Your task to perform on an android device: Go to eBay Image 0: 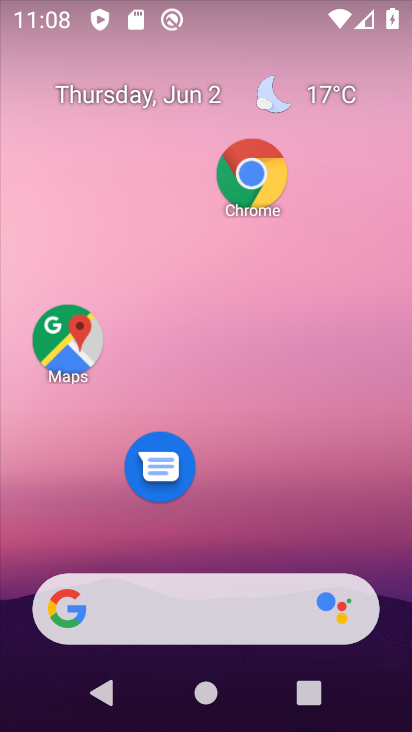
Step 0: press home button
Your task to perform on an android device: Go to eBay Image 1: 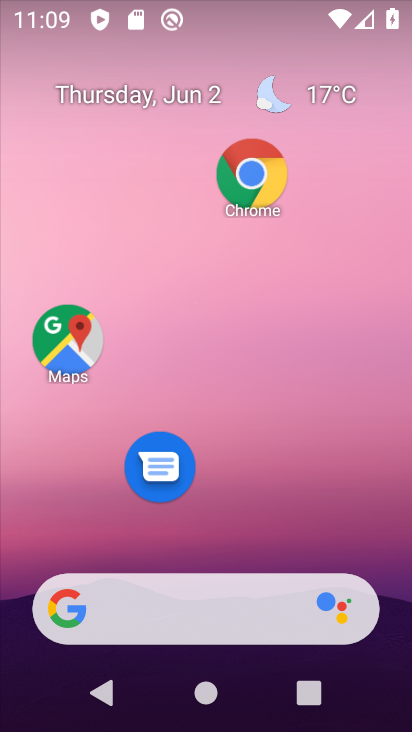
Step 1: click (57, 626)
Your task to perform on an android device: Go to eBay Image 2: 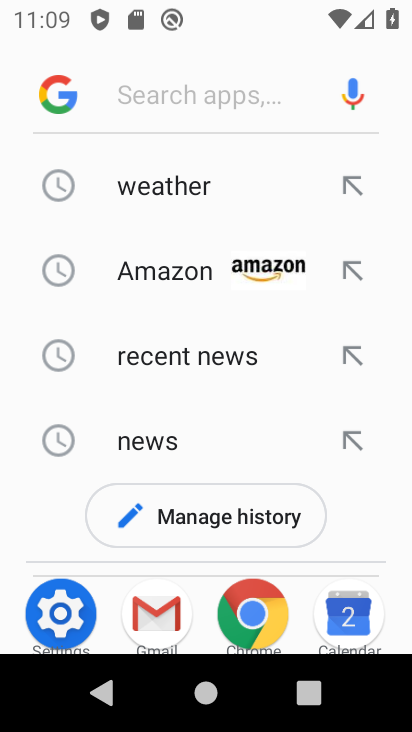
Step 2: type " eBay"
Your task to perform on an android device: Go to eBay Image 3: 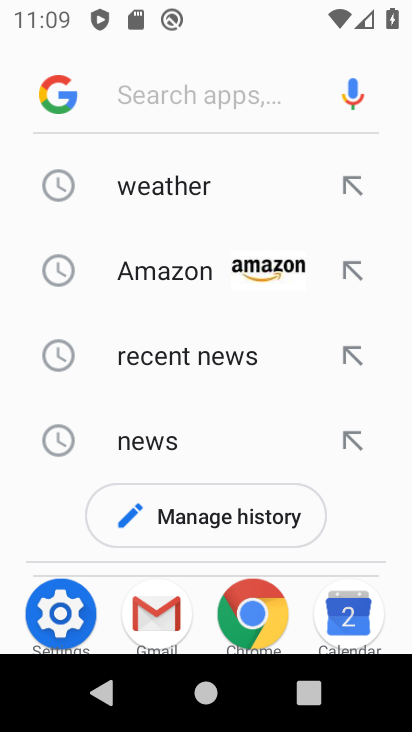
Step 3: click (183, 96)
Your task to perform on an android device: Go to eBay Image 4: 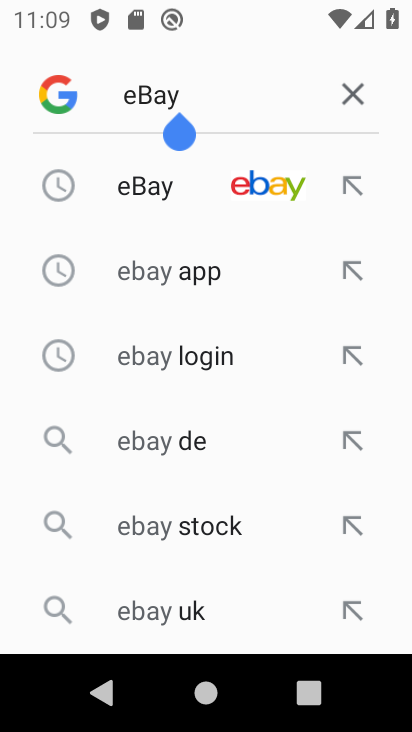
Step 4: click (155, 200)
Your task to perform on an android device: Go to eBay Image 5: 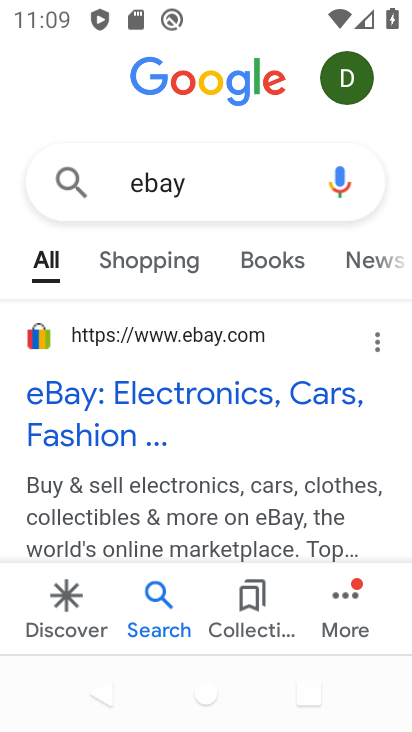
Step 5: click (165, 410)
Your task to perform on an android device: Go to eBay Image 6: 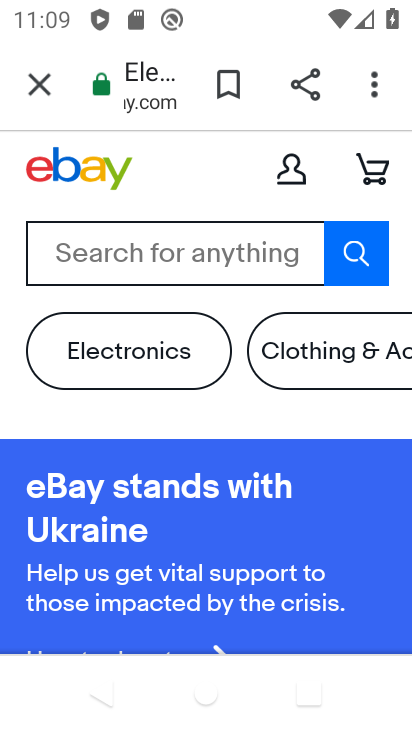
Step 6: task complete